Your task to perform on an android device: turn on improve location accuracy Image 0: 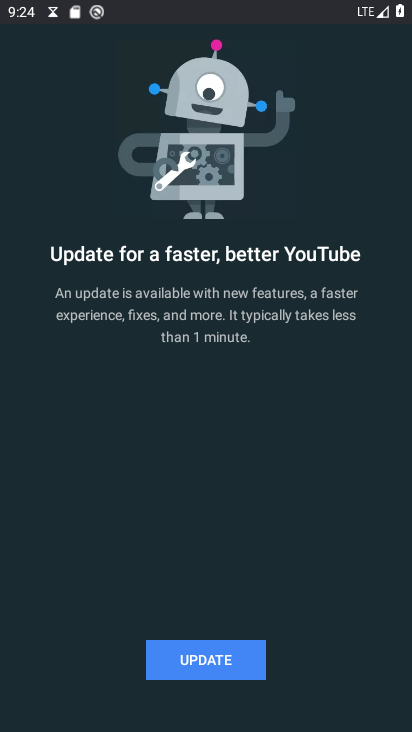
Step 0: press home button
Your task to perform on an android device: turn on improve location accuracy Image 1: 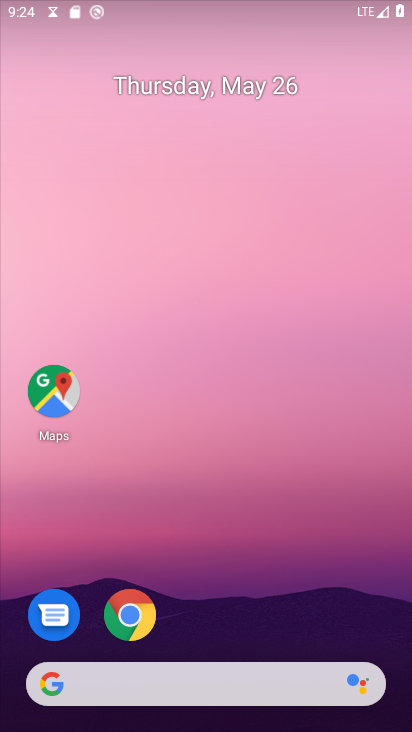
Step 1: drag from (216, 603) to (239, 205)
Your task to perform on an android device: turn on improve location accuracy Image 2: 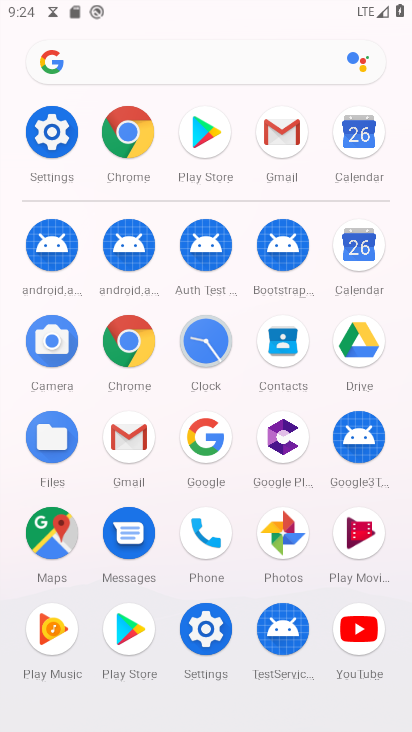
Step 2: click (54, 133)
Your task to perform on an android device: turn on improve location accuracy Image 3: 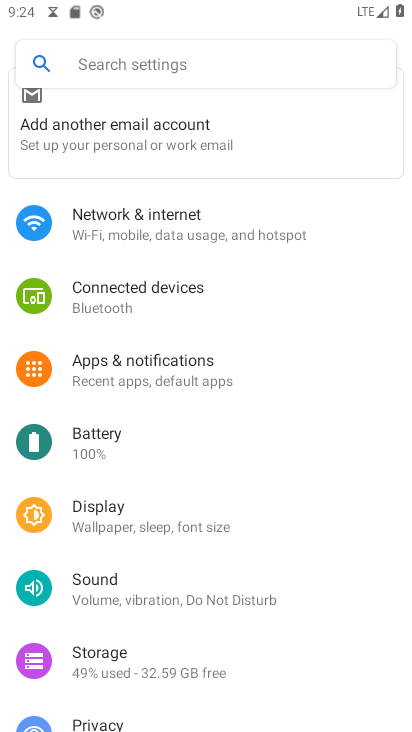
Step 3: drag from (155, 586) to (161, 359)
Your task to perform on an android device: turn on improve location accuracy Image 4: 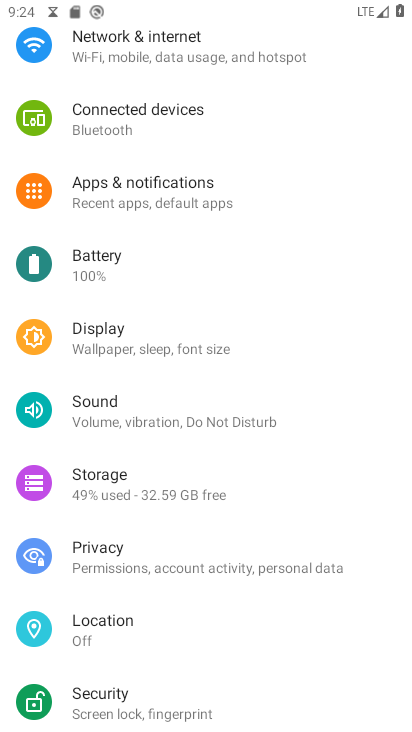
Step 4: click (150, 627)
Your task to perform on an android device: turn on improve location accuracy Image 5: 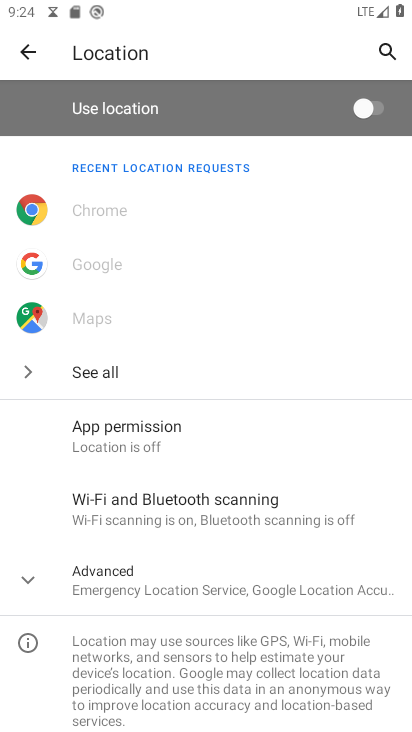
Step 5: drag from (186, 587) to (204, 400)
Your task to perform on an android device: turn on improve location accuracy Image 6: 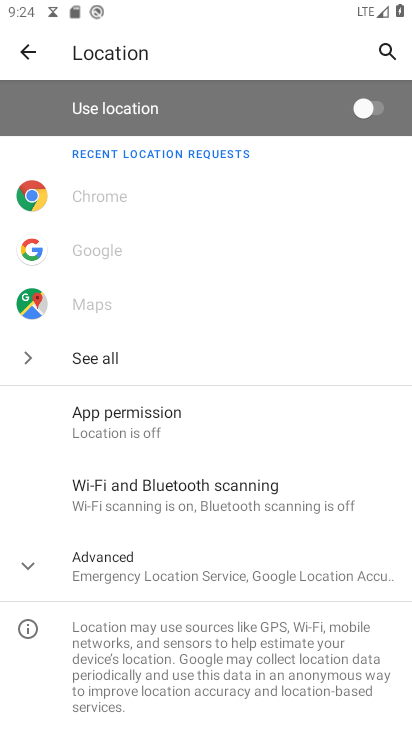
Step 6: click (167, 564)
Your task to perform on an android device: turn on improve location accuracy Image 7: 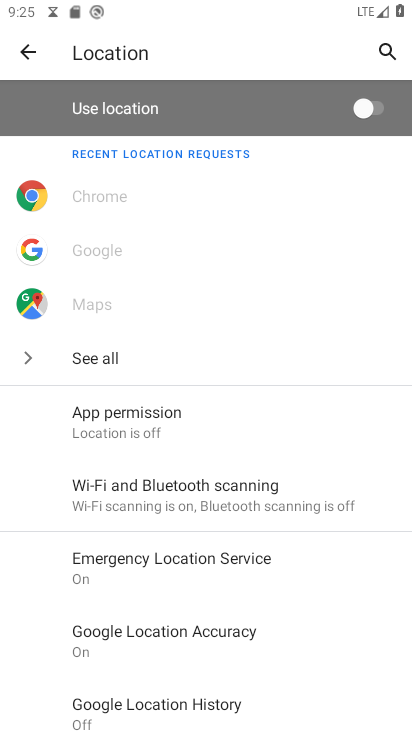
Step 7: drag from (268, 651) to (312, 218)
Your task to perform on an android device: turn on improve location accuracy Image 8: 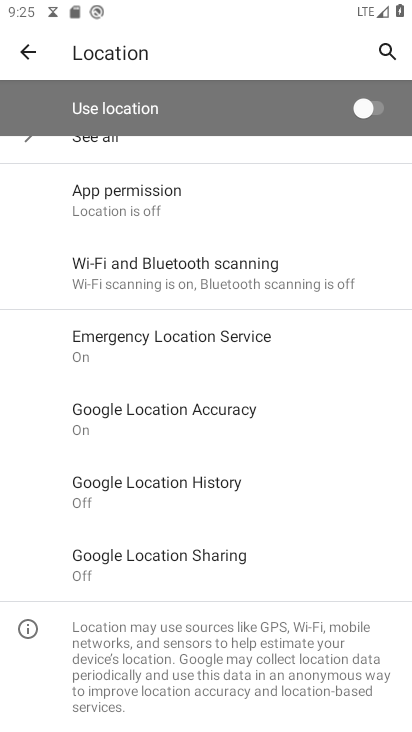
Step 8: click (188, 420)
Your task to perform on an android device: turn on improve location accuracy Image 9: 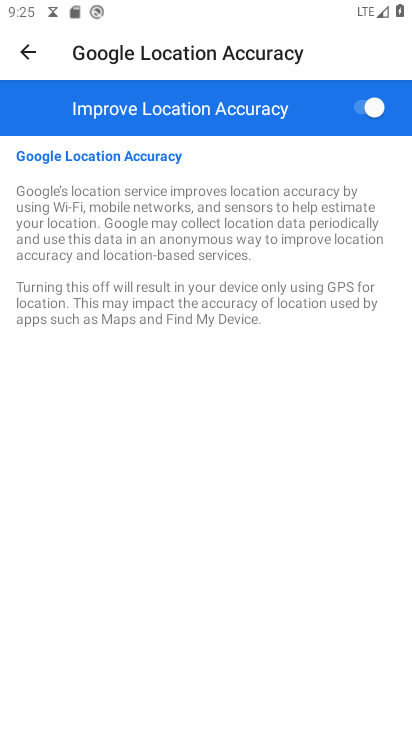
Step 9: task complete